Your task to perform on an android device: empty trash in google photos Image 0: 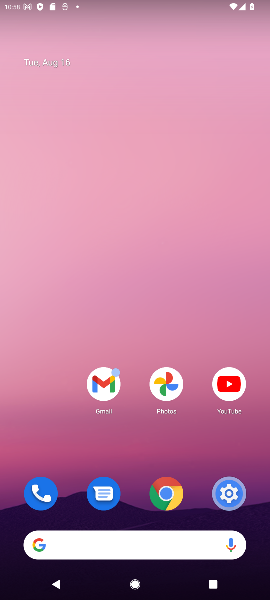
Step 0: click (170, 379)
Your task to perform on an android device: empty trash in google photos Image 1: 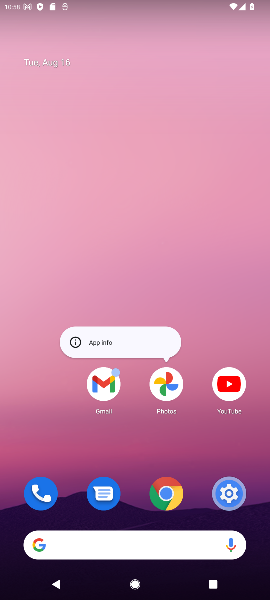
Step 1: click (170, 390)
Your task to perform on an android device: empty trash in google photos Image 2: 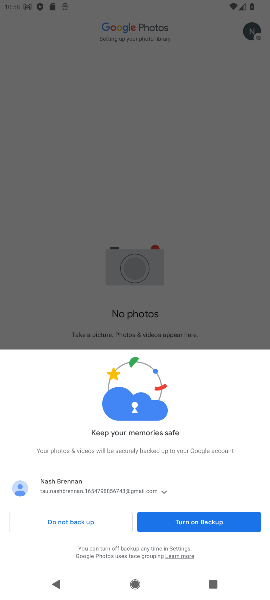
Step 2: click (203, 526)
Your task to perform on an android device: empty trash in google photos Image 3: 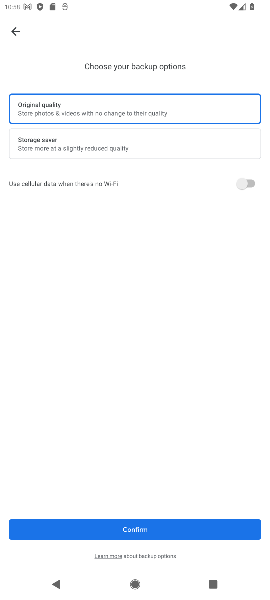
Step 3: click (144, 531)
Your task to perform on an android device: empty trash in google photos Image 4: 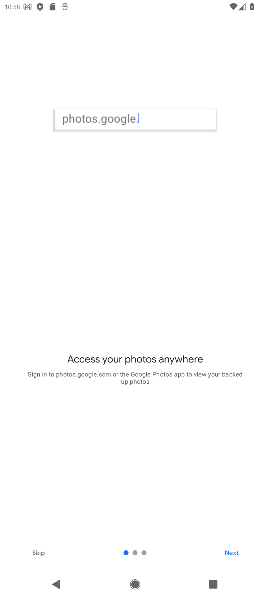
Step 4: click (236, 549)
Your task to perform on an android device: empty trash in google photos Image 5: 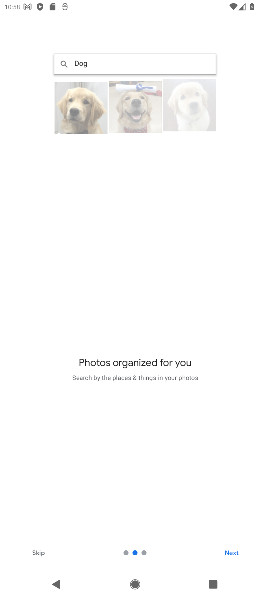
Step 5: click (233, 553)
Your task to perform on an android device: empty trash in google photos Image 6: 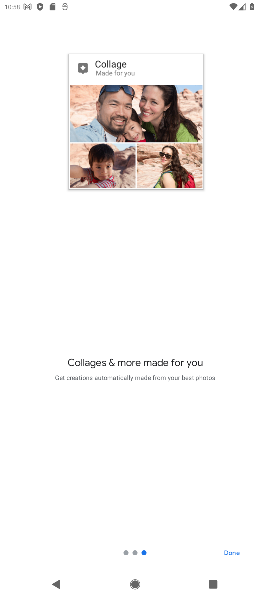
Step 6: click (227, 554)
Your task to perform on an android device: empty trash in google photos Image 7: 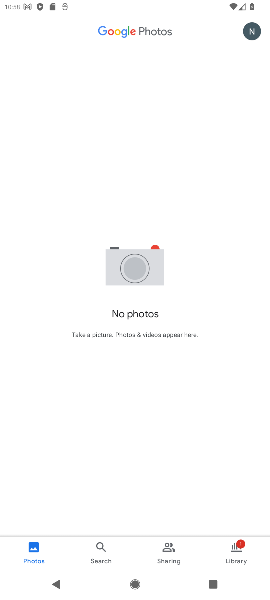
Step 7: click (251, 31)
Your task to perform on an android device: empty trash in google photos Image 8: 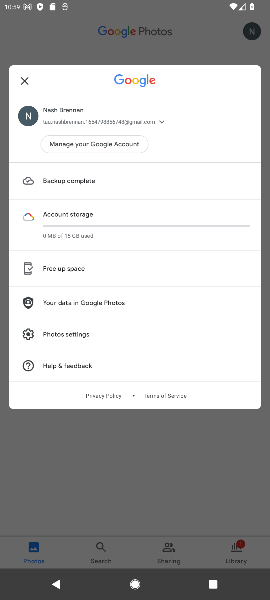
Step 8: click (60, 331)
Your task to perform on an android device: empty trash in google photos Image 9: 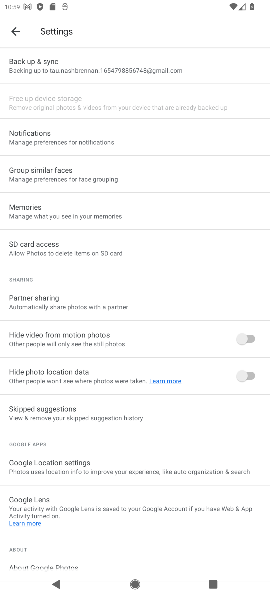
Step 9: task complete